Your task to perform on an android device: Open Yahoo.com Image 0: 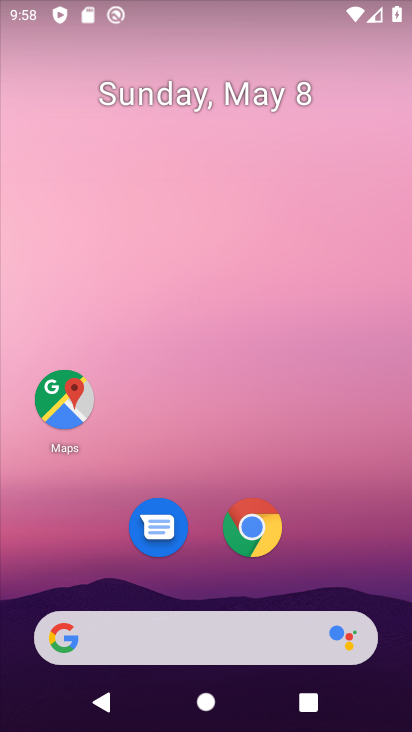
Step 0: click (266, 530)
Your task to perform on an android device: Open Yahoo.com Image 1: 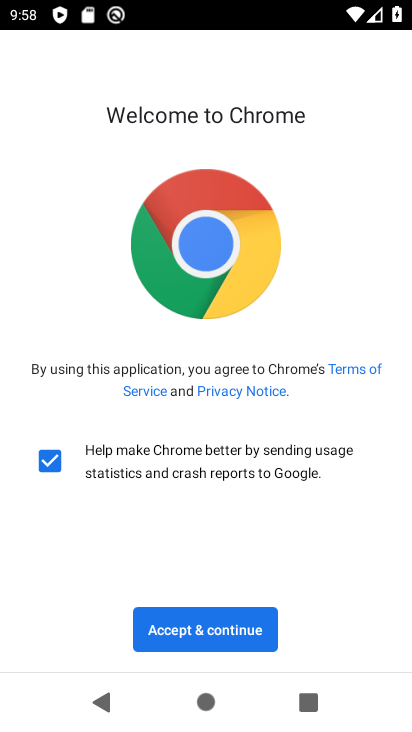
Step 1: click (220, 642)
Your task to perform on an android device: Open Yahoo.com Image 2: 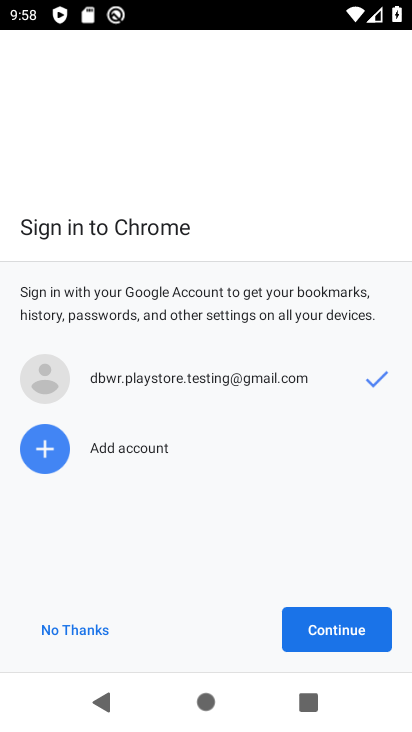
Step 2: click (307, 640)
Your task to perform on an android device: Open Yahoo.com Image 3: 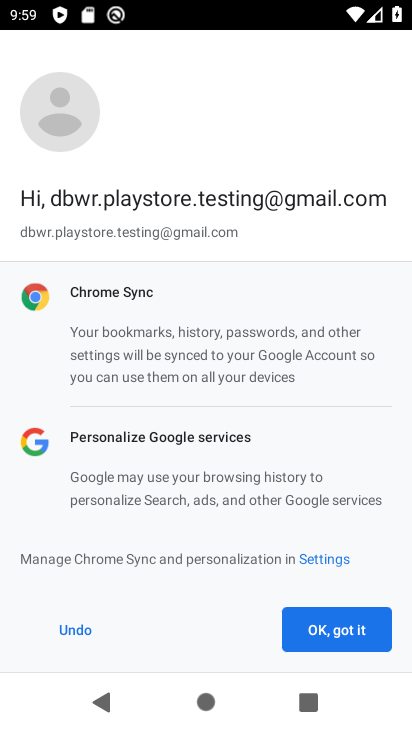
Step 3: click (342, 632)
Your task to perform on an android device: Open Yahoo.com Image 4: 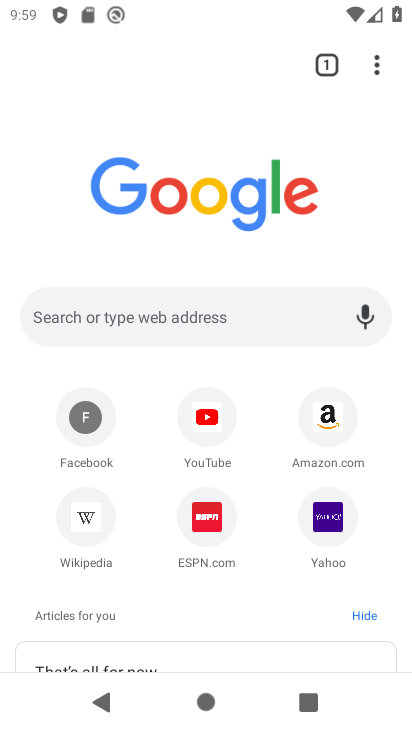
Step 4: click (195, 319)
Your task to perform on an android device: Open Yahoo.com Image 5: 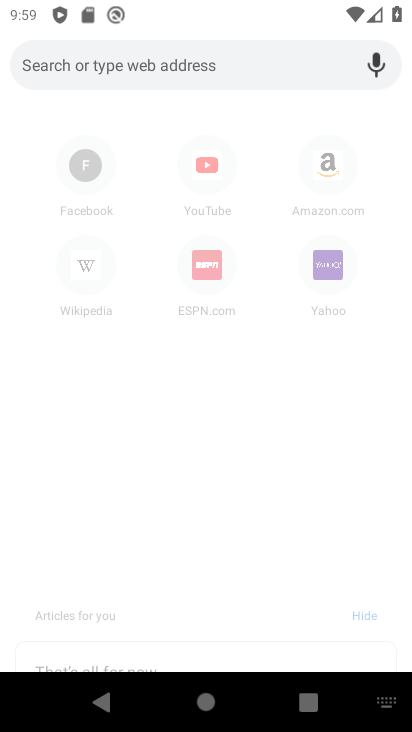
Step 5: type "Yahoo.com"
Your task to perform on an android device: Open Yahoo.com Image 6: 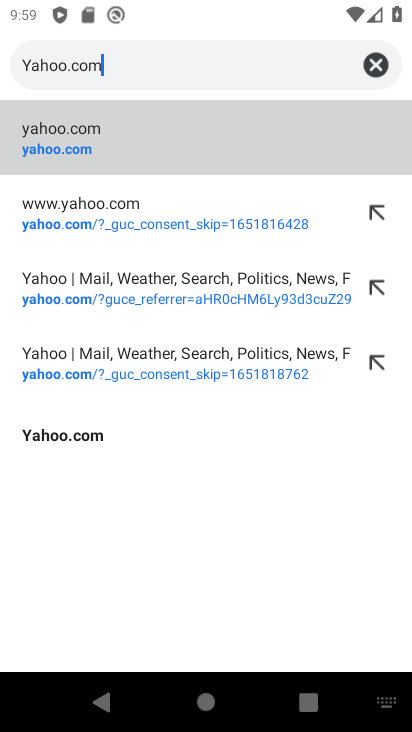
Step 6: click (73, 137)
Your task to perform on an android device: Open Yahoo.com Image 7: 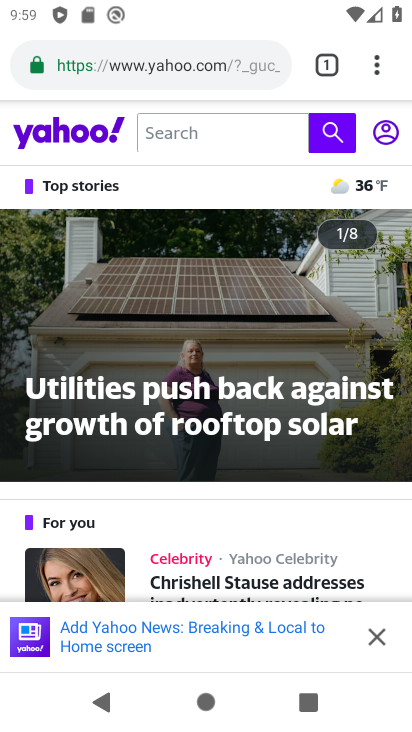
Step 7: task complete